Your task to perform on an android device: Add razer thresher to the cart on newegg Image 0: 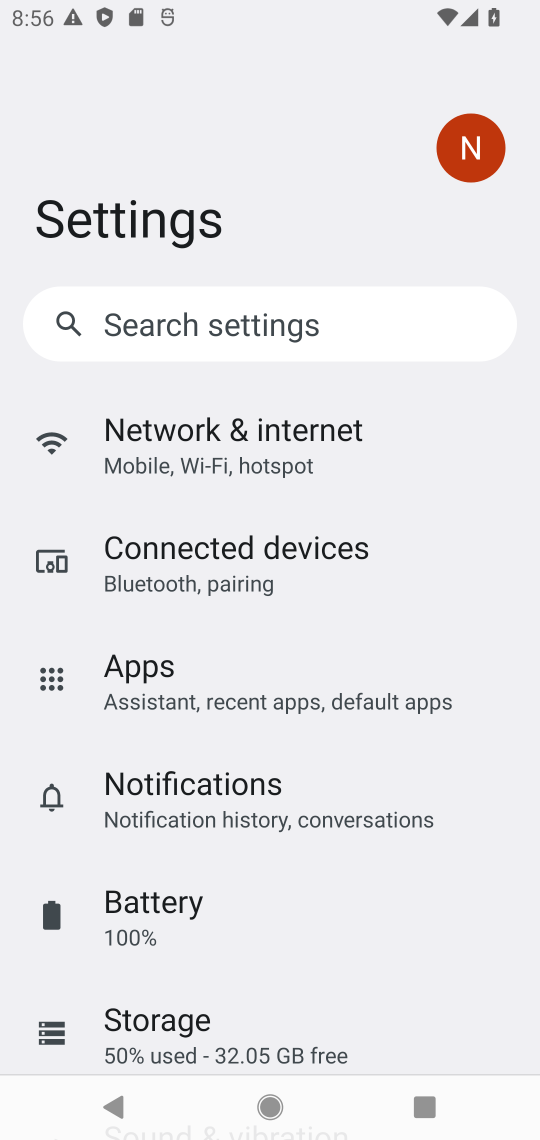
Step 0: press home button
Your task to perform on an android device: Add razer thresher to the cart on newegg Image 1: 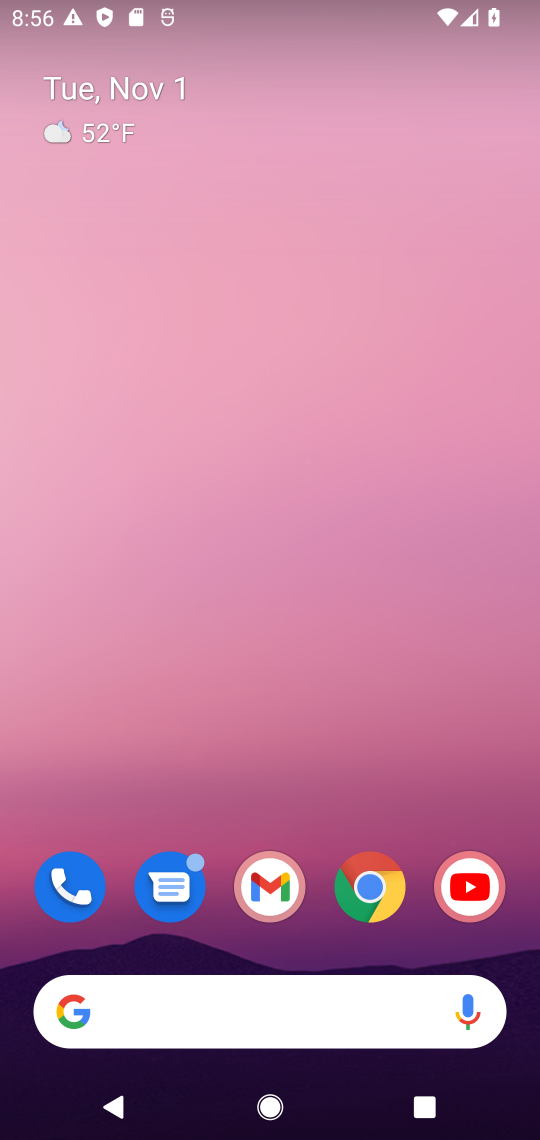
Step 1: drag from (205, 836) to (207, 148)
Your task to perform on an android device: Add razer thresher to the cart on newegg Image 2: 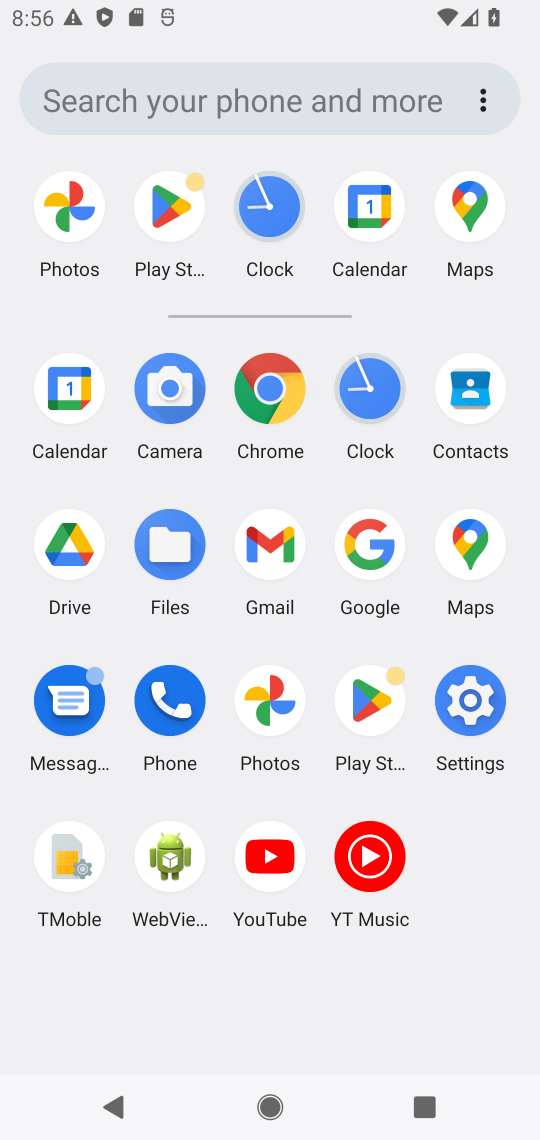
Step 2: click (371, 548)
Your task to perform on an android device: Add razer thresher to the cart on newegg Image 3: 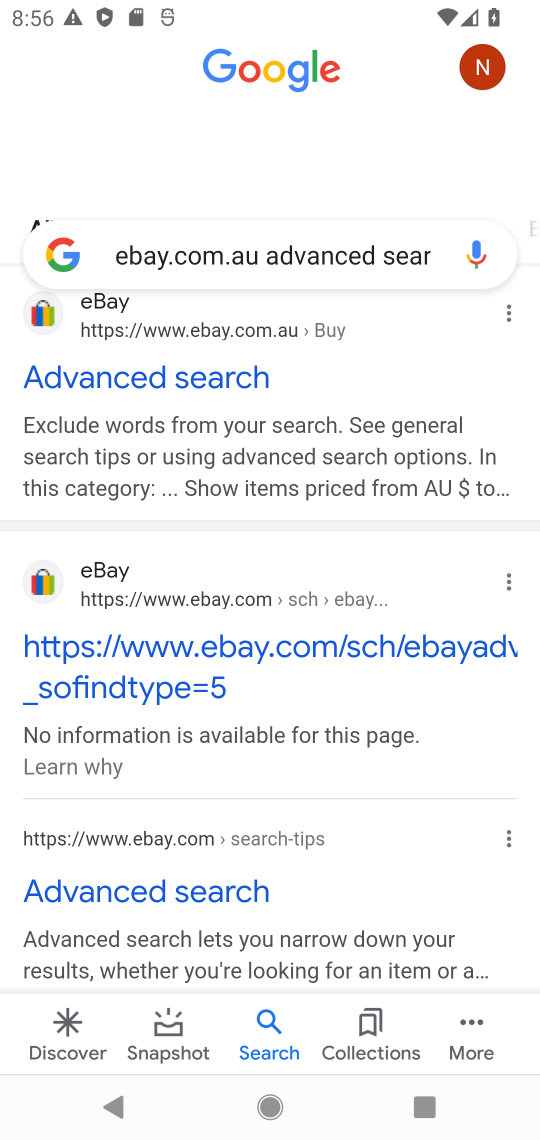
Step 3: click (288, 250)
Your task to perform on an android device: Add razer thresher to the cart on newegg Image 4: 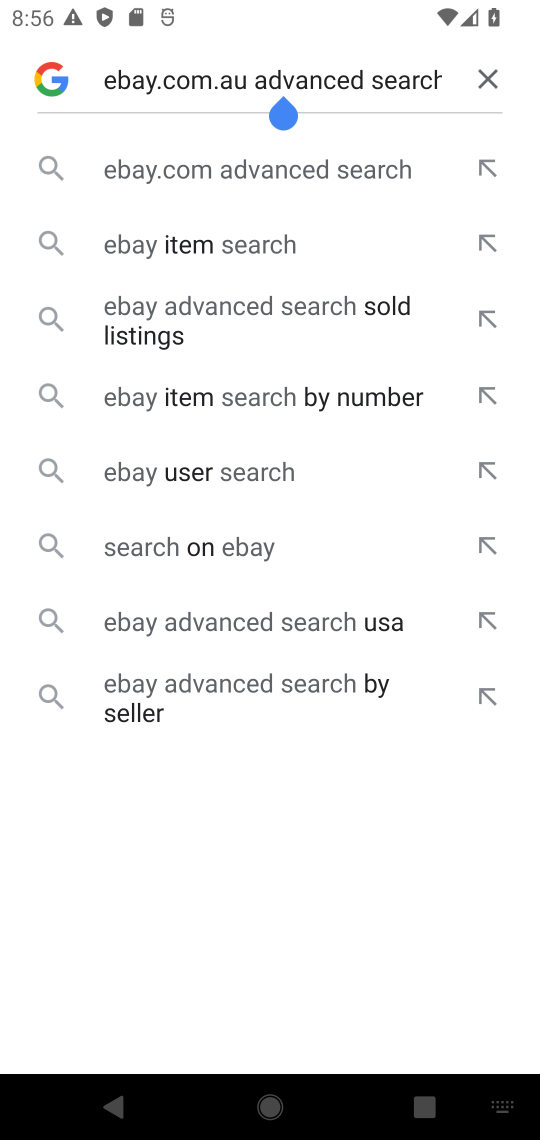
Step 4: click (479, 74)
Your task to perform on an android device: Add razer thresher to the cart on newegg Image 5: 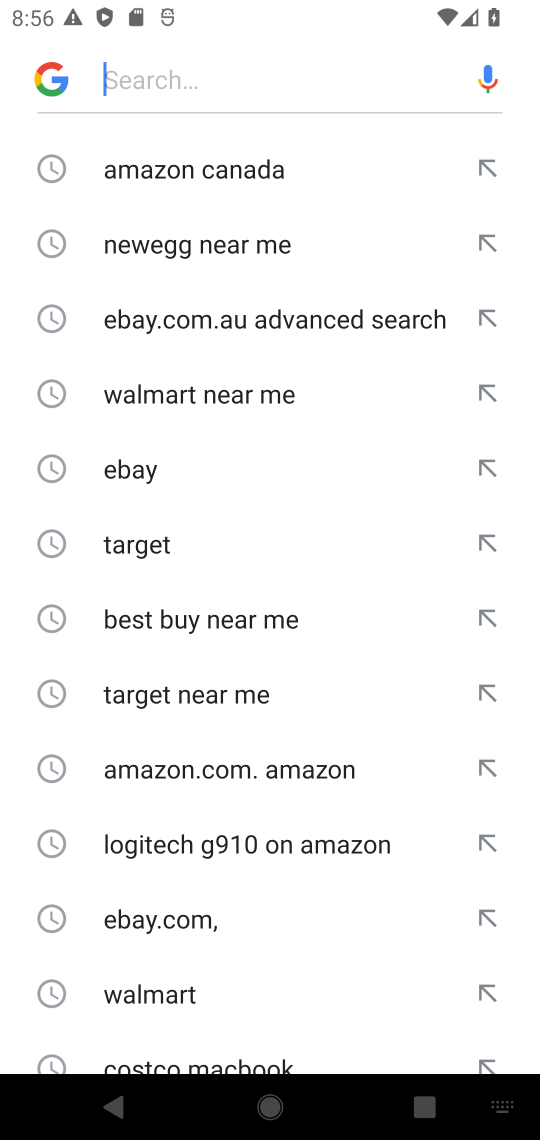
Step 5: click (226, 64)
Your task to perform on an android device: Add razer thresher to the cart on newegg Image 6: 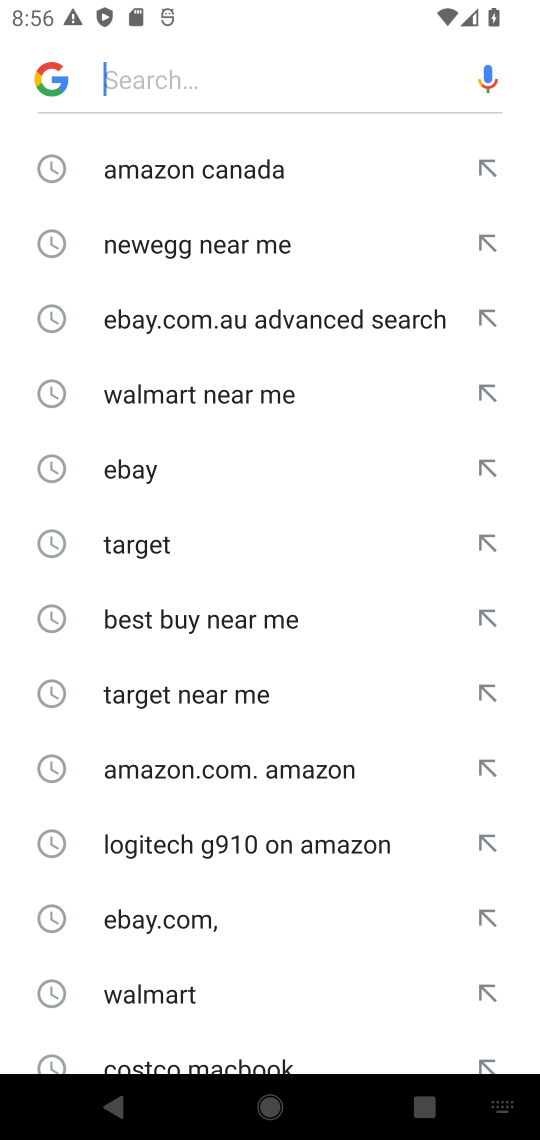
Step 6: type "newegg "
Your task to perform on an android device: Add razer thresher to the cart on newegg Image 7: 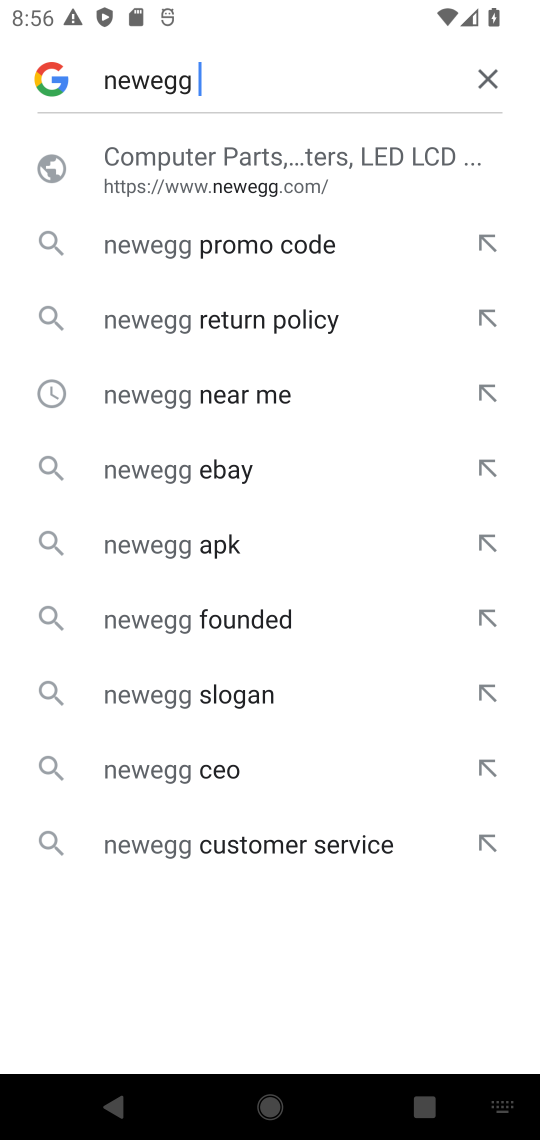
Step 7: click (235, 387)
Your task to perform on an android device: Add razer thresher to the cart on newegg Image 8: 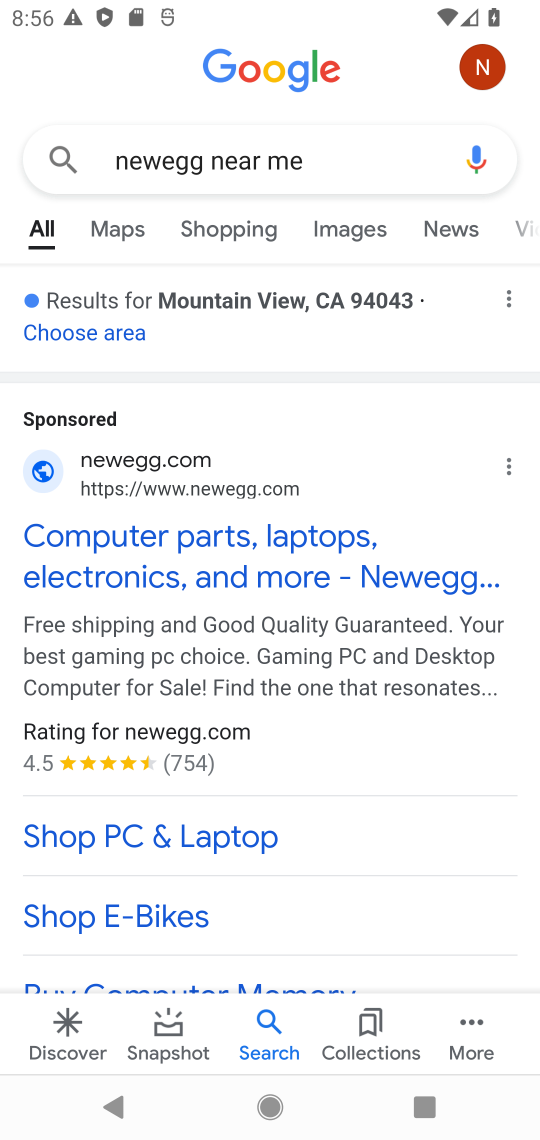
Step 8: drag from (89, 757) to (154, 330)
Your task to perform on an android device: Add razer thresher to the cart on newegg Image 9: 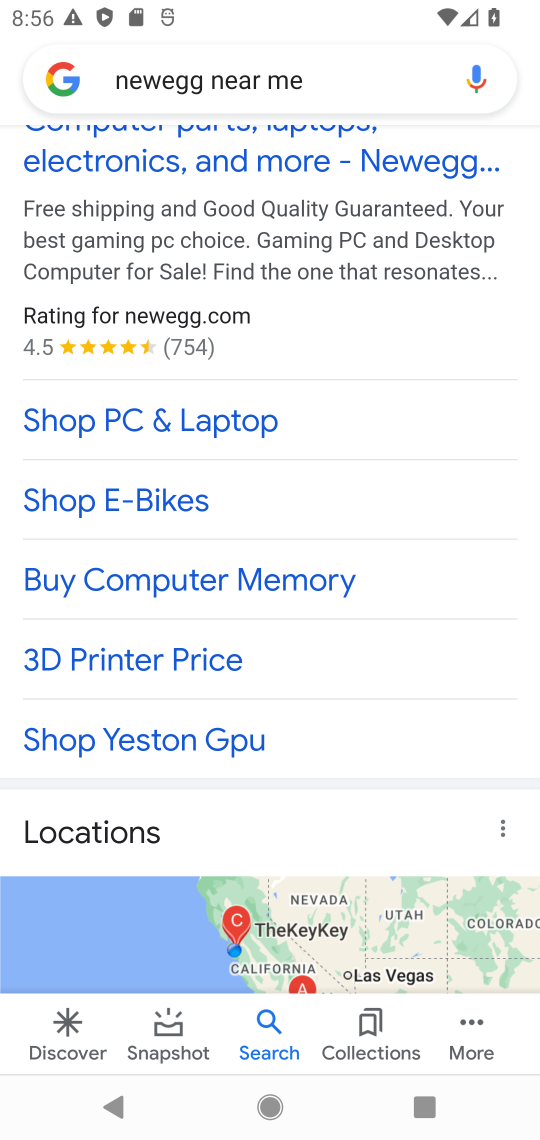
Step 9: drag from (130, 864) to (199, 388)
Your task to perform on an android device: Add razer thresher to the cart on newegg Image 10: 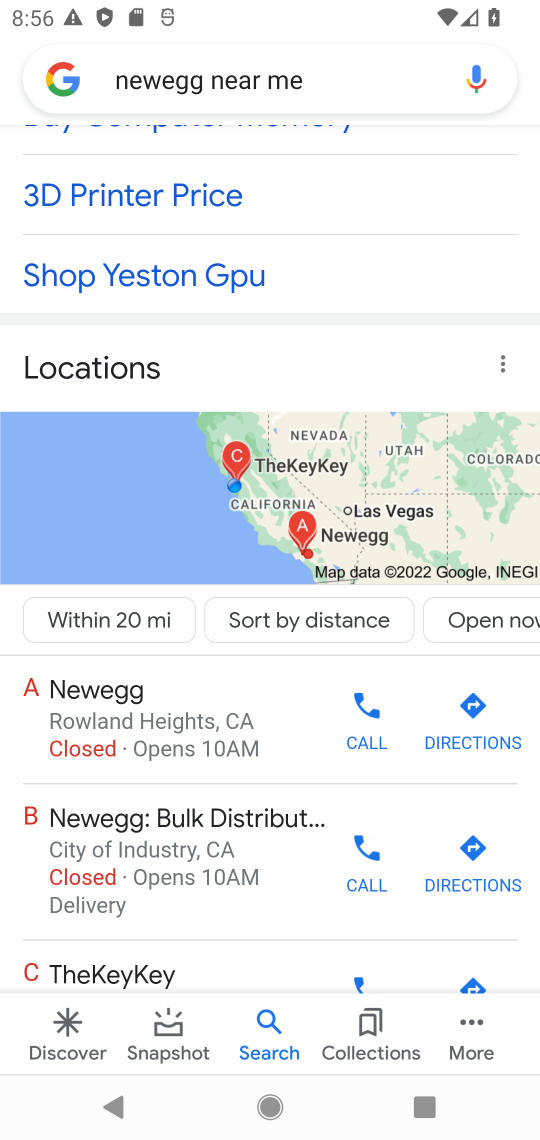
Step 10: drag from (161, 770) to (240, 267)
Your task to perform on an android device: Add razer thresher to the cart on newegg Image 11: 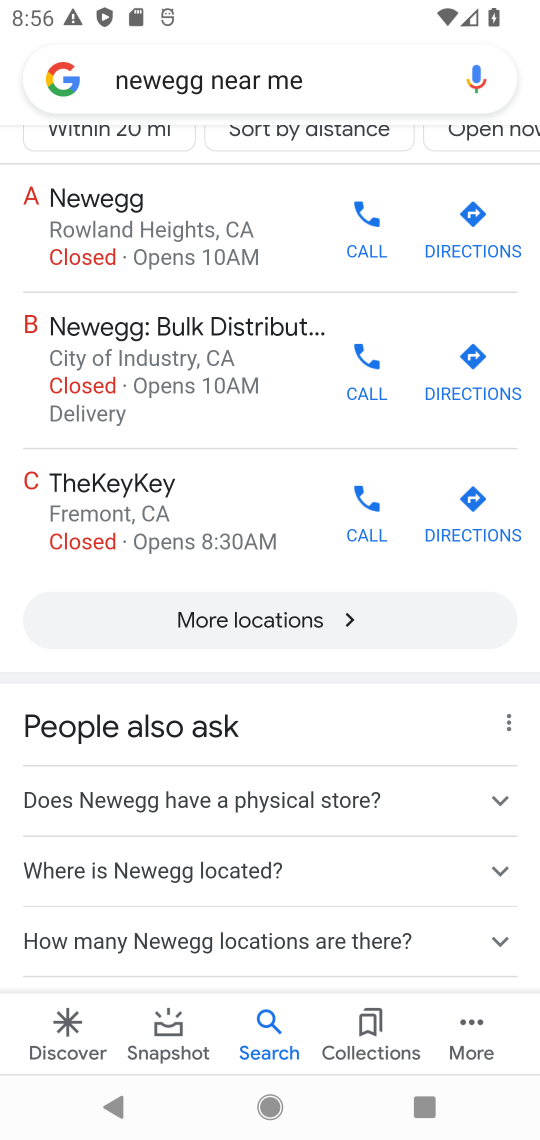
Step 11: click (128, 204)
Your task to perform on an android device: Add razer thresher to the cart on newegg Image 12: 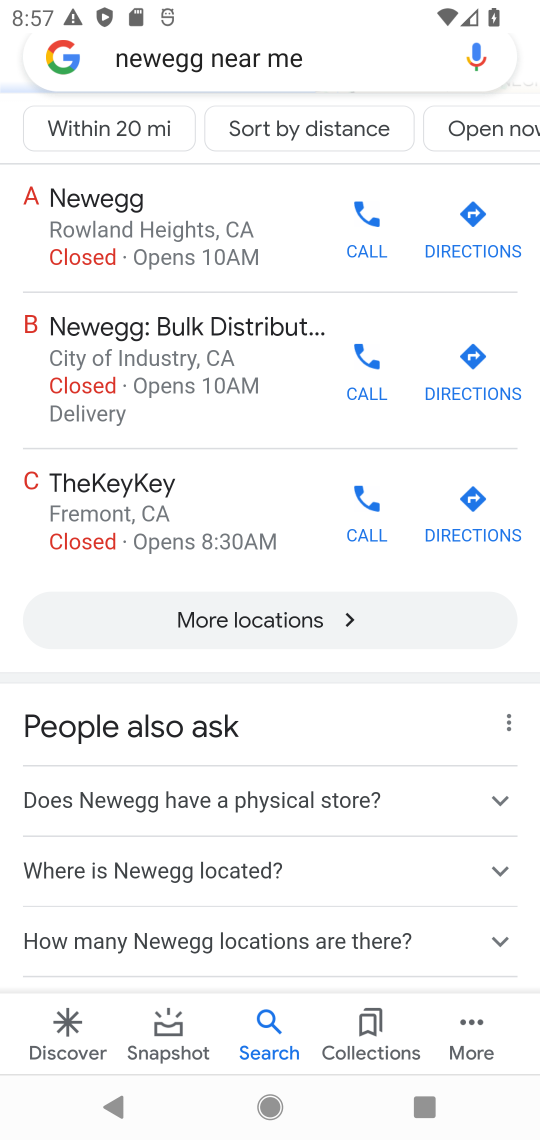
Step 12: drag from (164, 794) to (232, 139)
Your task to perform on an android device: Add razer thresher to the cart on newegg Image 13: 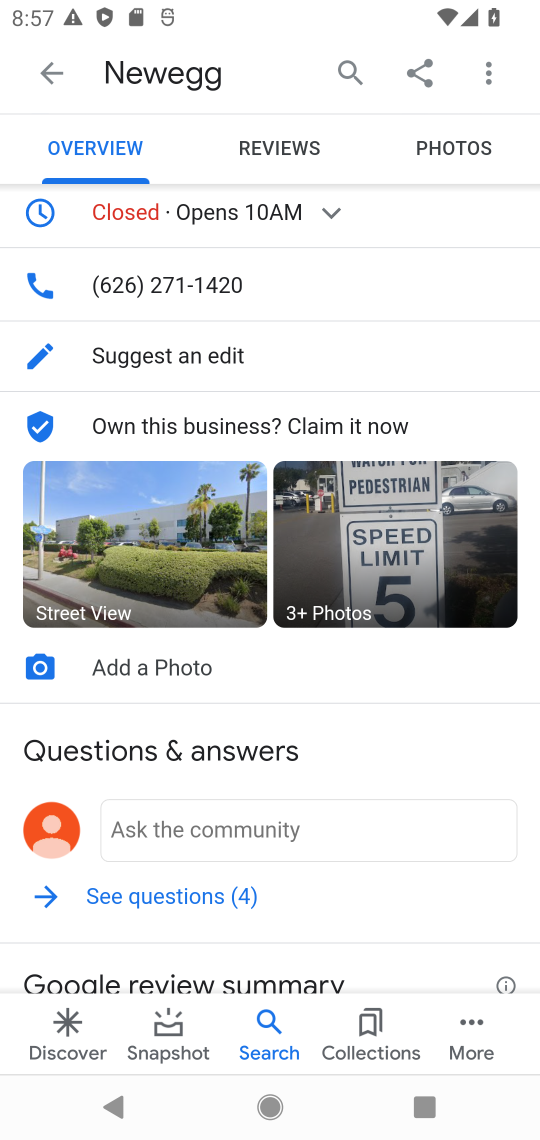
Step 13: press back button
Your task to perform on an android device: Add razer thresher to the cart on newegg Image 14: 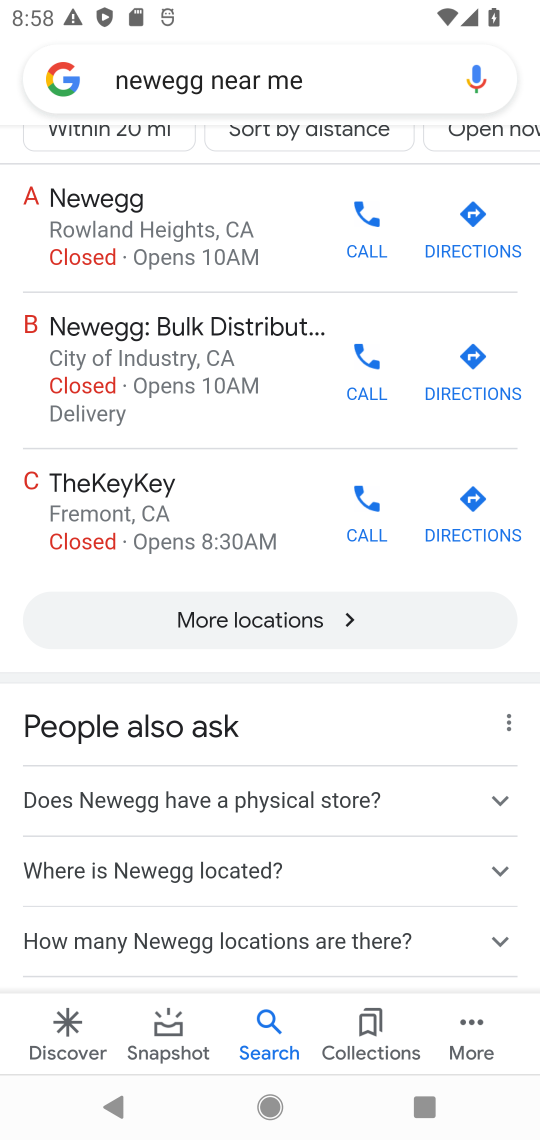
Step 14: drag from (309, 874) to (257, 356)
Your task to perform on an android device: Add razer thresher to the cart on newegg Image 15: 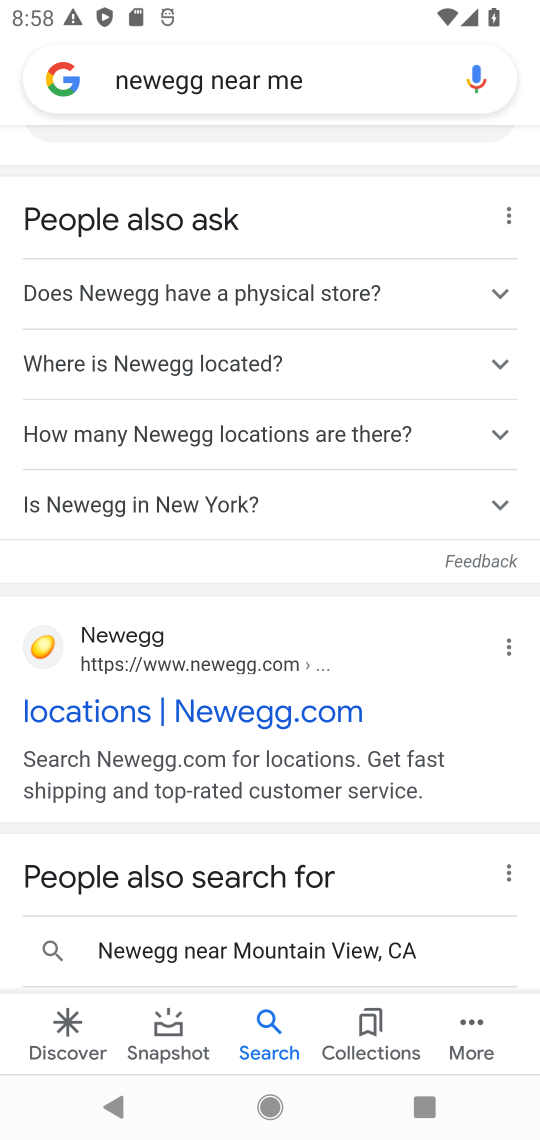
Step 15: click (46, 639)
Your task to perform on an android device: Add razer thresher to the cart on newegg Image 16: 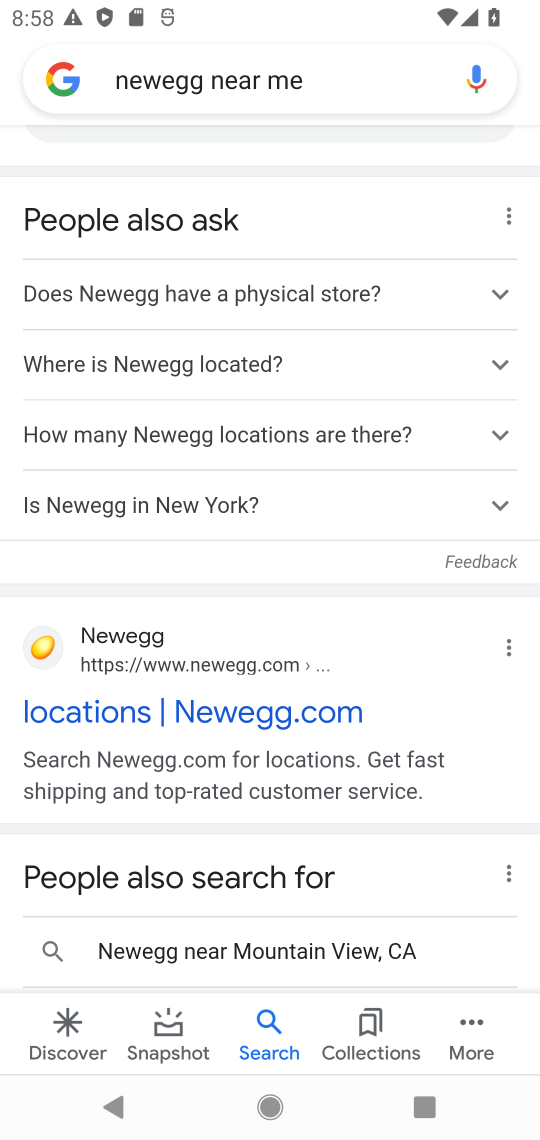
Step 16: click (40, 641)
Your task to perform on an android device: Add razer thresher to the cart on newegg Image 17: 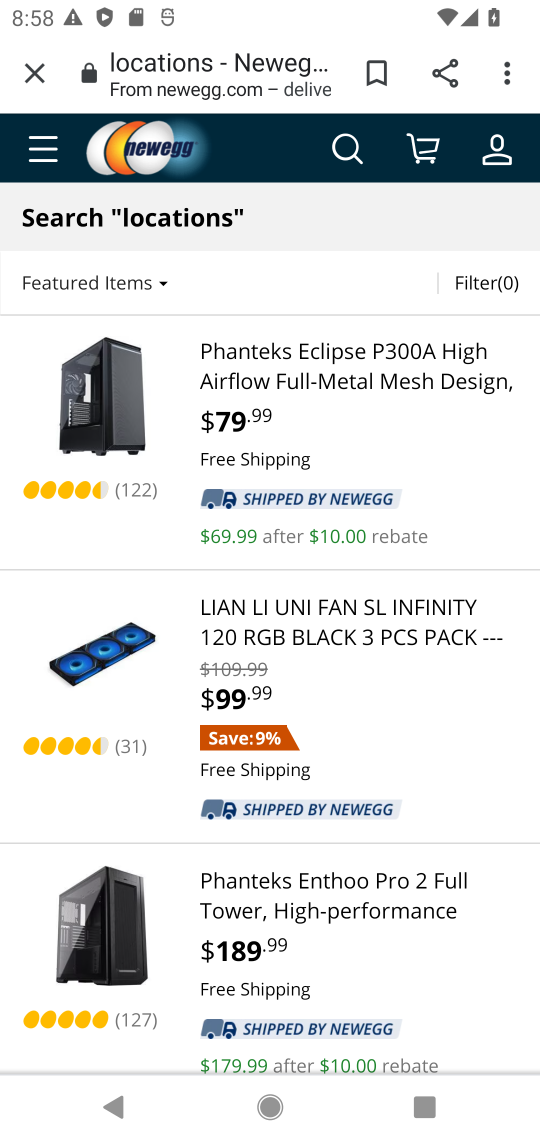
Step 17: click (338, 155)
Your task to perform on an android device: Add razer thresher to the cart on newegg Image 18: 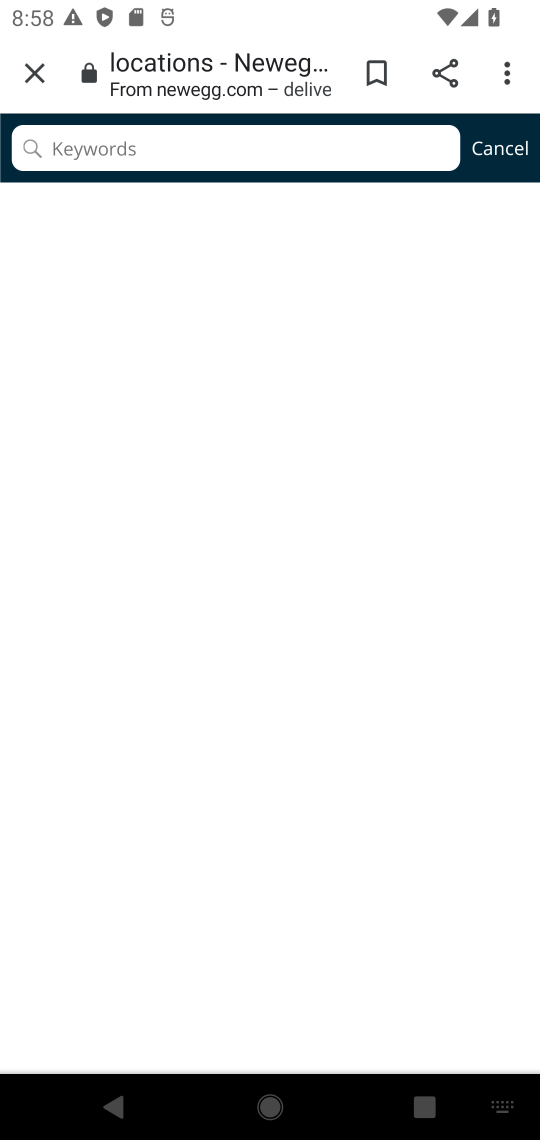
Step 18: click (284, 128)
Your task to perform on an android device: Add razer thresher to the cart on newegg Image 19: 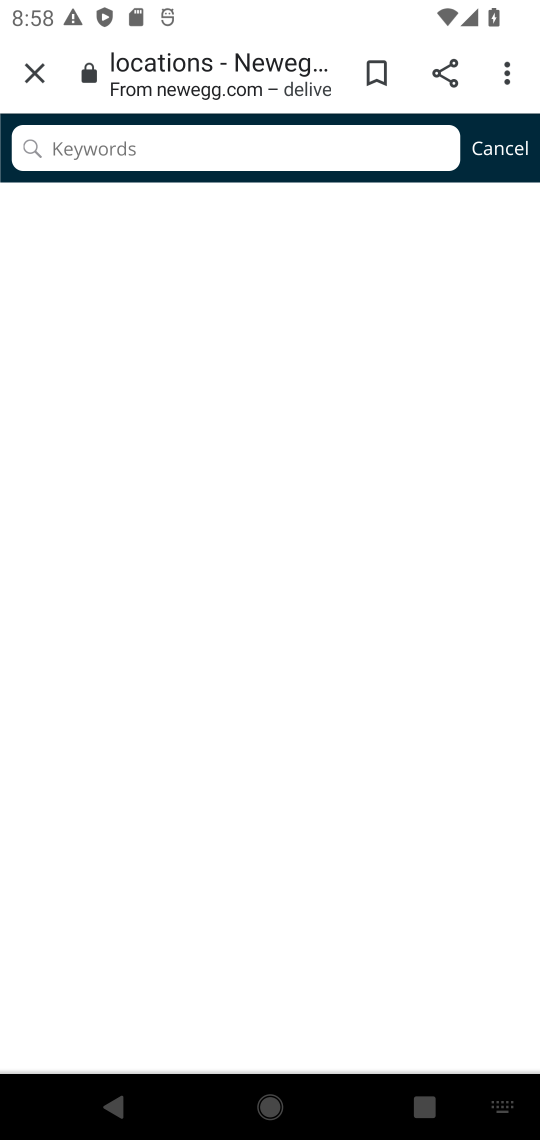
Step 19: type " razer thresher "
Your task to perform on an android device: Add razer thresher to the cart on newegg Image 20: 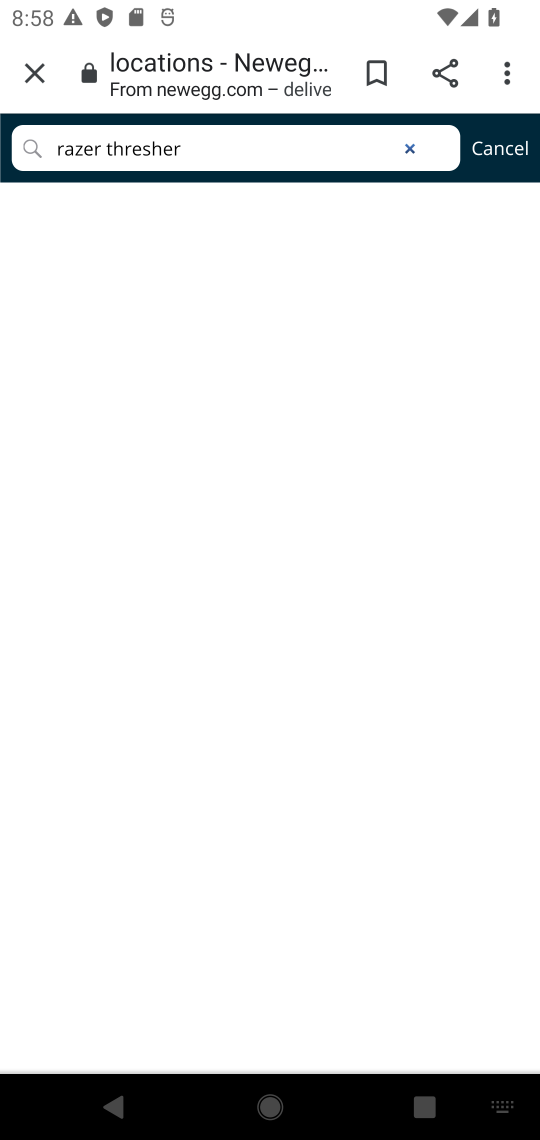
Step 20: task complete